Your task to perform on an android device: Go to wifi settings Image 0: 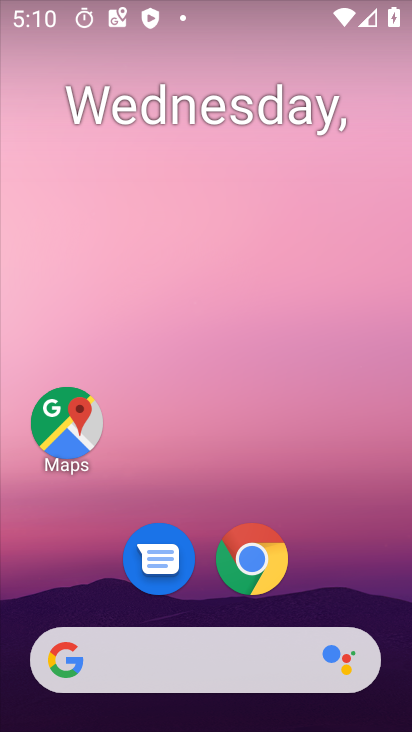
Step 0: drag from (331, 572) to (235, 126)
Your task to perform on an android device: Go to wifi settings Image 1: 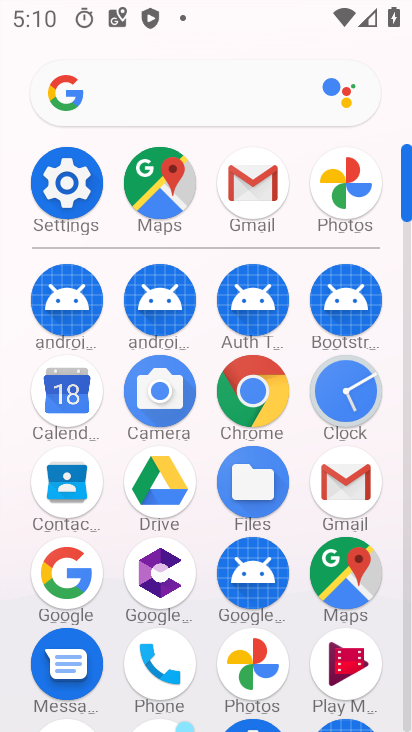
Step 1: click (80, 170)
Your task to perform on an android device: Go to wifi settings Image 2: 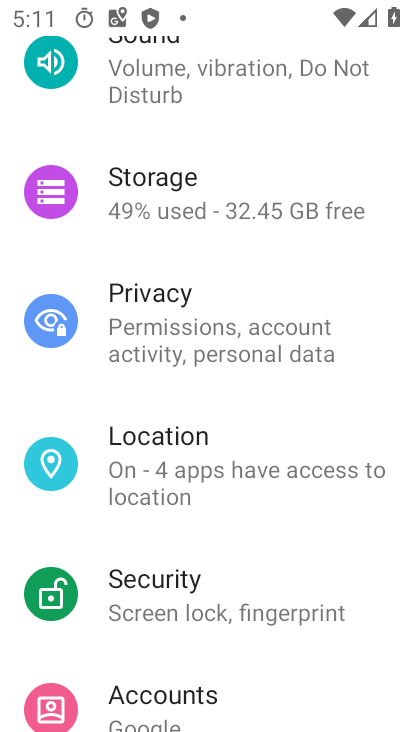
Step 2: drag from (267, 152) to (274, 672)
Your task to perform on an android device: Go to wifi settings Image 3: 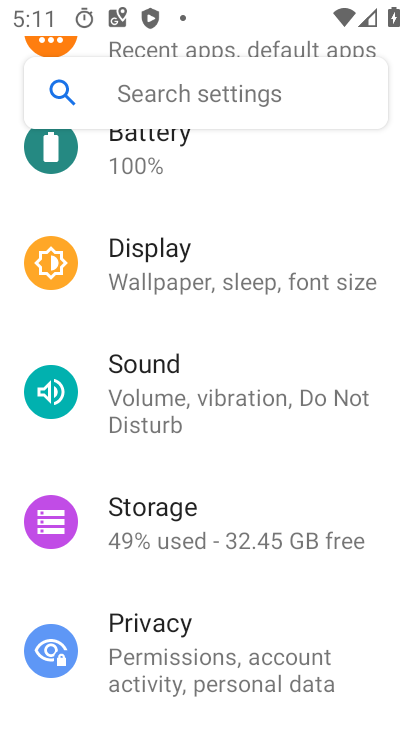
Step 3: drag from (227, 268) to (243, 635)
Your task to perform on an android device: Go to wifi settings Image 4: 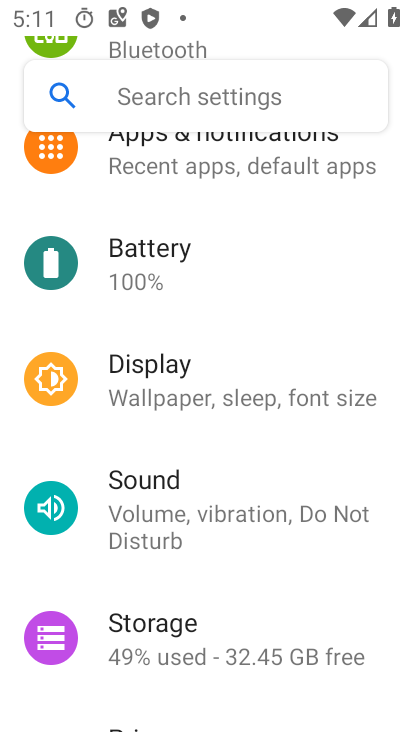
Step 4: drag from (220, 223) to (214, 718)
Your task to perform on an android device: Go to wifi settings Image 5: 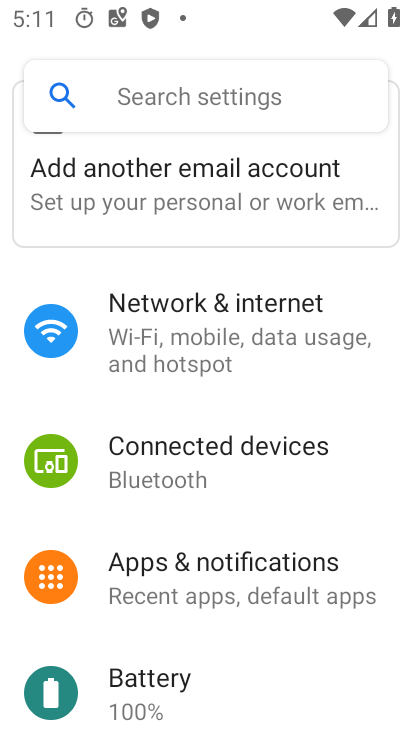
Step 5: click (212, 312)
Your task to perform on an android device: Go to wifi settings Image 6: 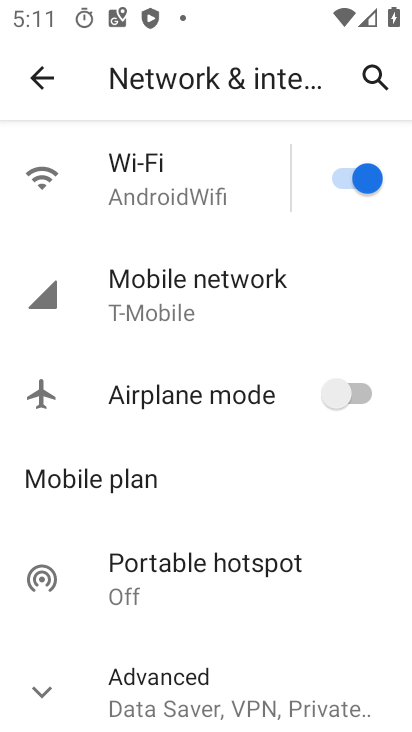
Step 6: click (200, 184)
Your task to perform on an android device: Go to wifi settings Image 7: 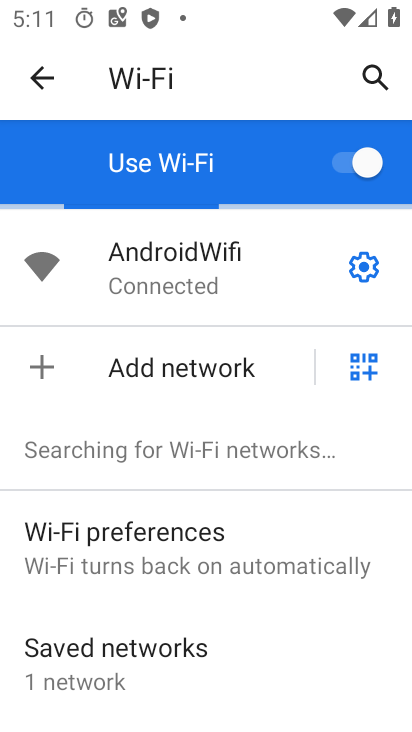
Step 7: task complete